Your task to perform on an android device: Open my contact list Image 0: 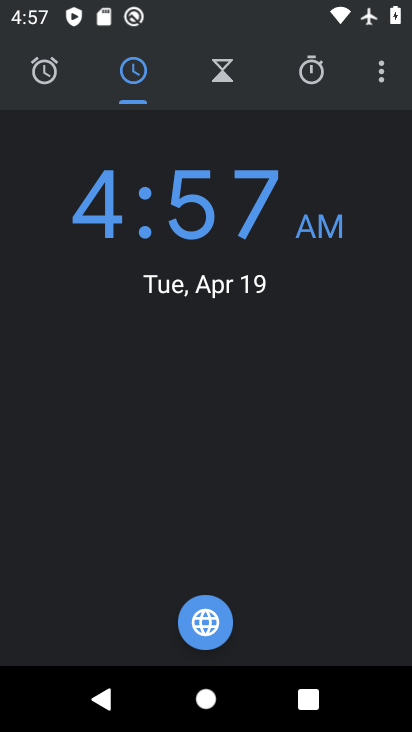
Step 0: press home button
Your task to perform on an android device: Open my contact list Image 1: 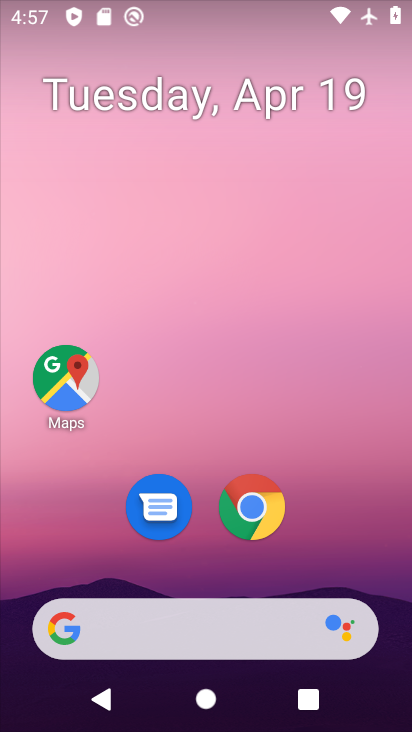
Step 1: drag from (335, 519) to (323, 102)
Your task to perform on an android device: Open my contact list Image 2: 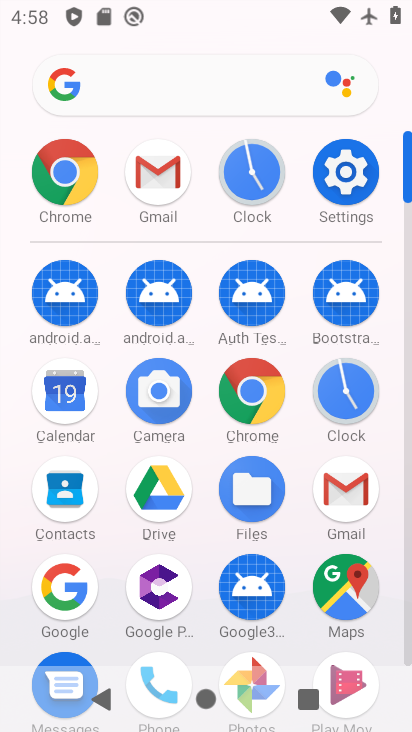
Step 2: click (70, 487)
Your task to perform on an android device: Open my contact list Image 3: 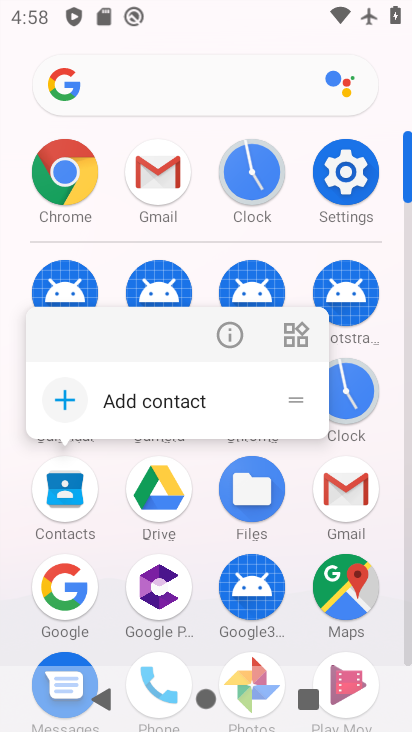
Step 3: click (57, 498)
Your task to perform on an android device: Open my contact list Image 4: 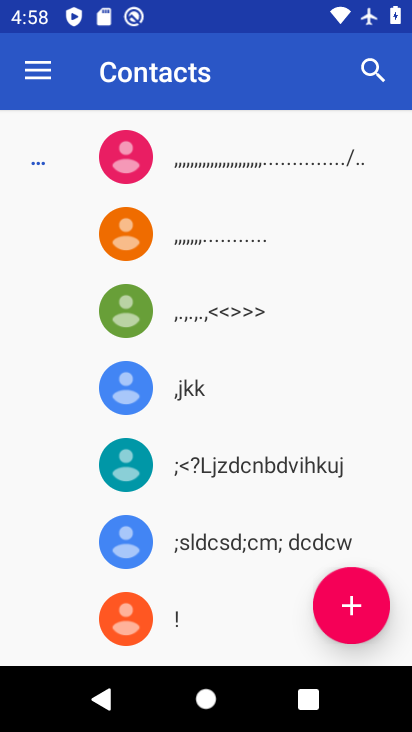
Step 4: task complete